Your task to perform on an android device: Go to internet settings Image 0: 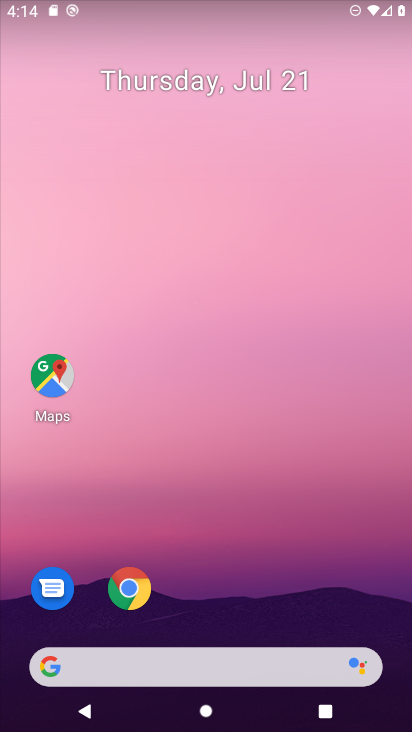
Step 0: drag from (231, 688) to (335, 82)
Your task to perform on an android device: Go to internet settings Image 1: 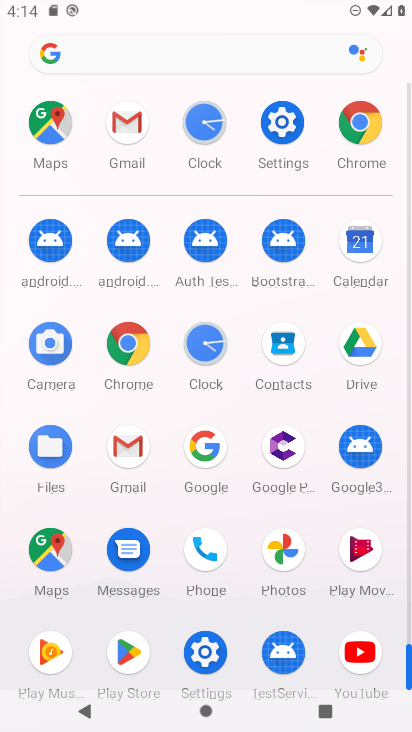
Step 1: click (273, 131)
Your task to perform on an android device: Go to internet settings Image 2: 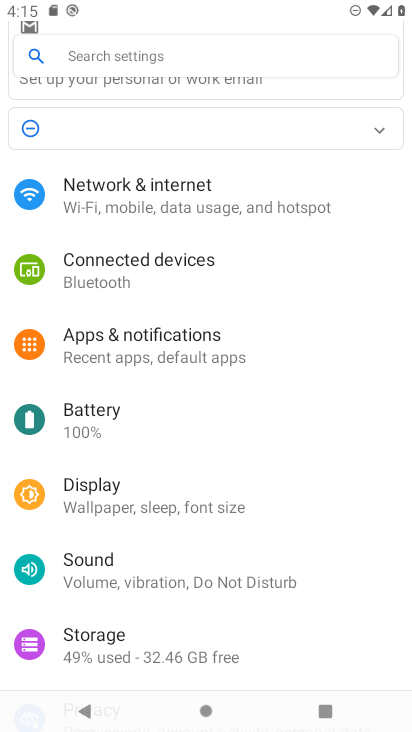
Step 2: click (171, 194)
Your task to perform on an android device: Go to internet settings Image 3: 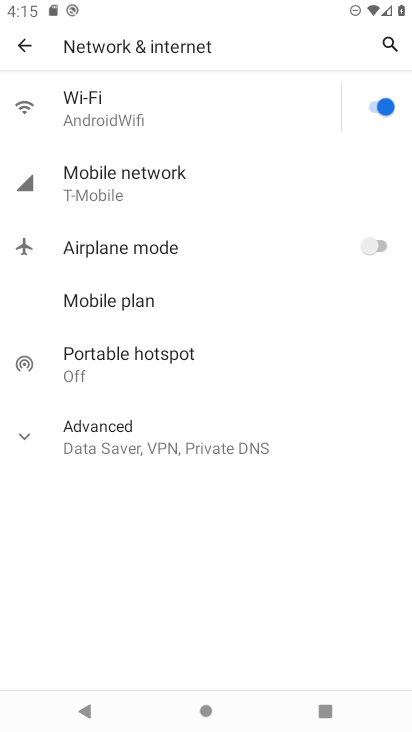
Step 3: click (148, 181)
Your task to perform on an android device: Go to internet settings Image 4: 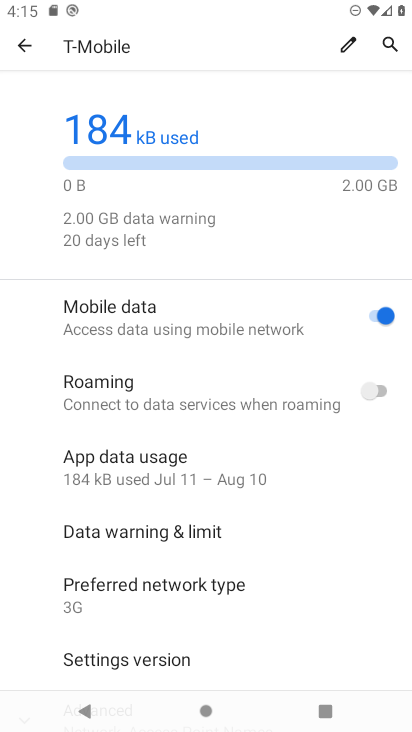
Step 4: task complete